Your task to perform on an android device: Go to Maps Image 0: 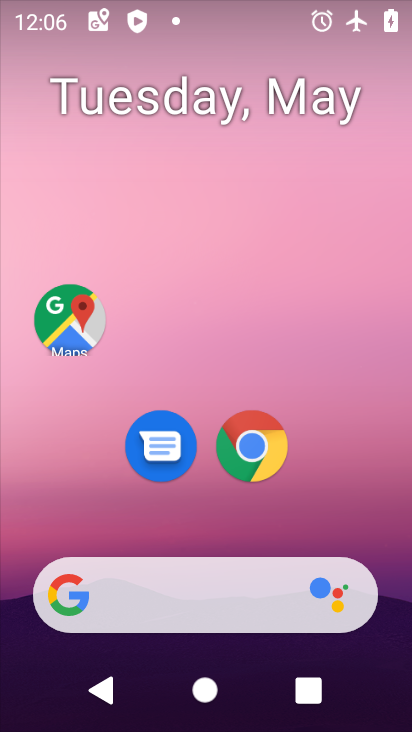
Step 0: click (71, 305)
Your task to perform on an android device: Go to Maps Image 1: 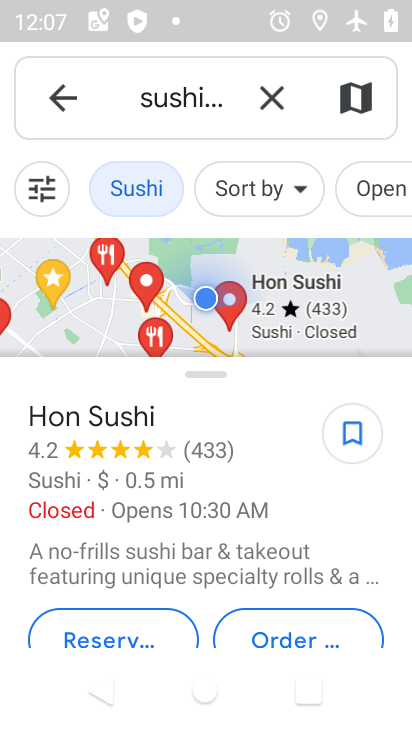
Step 1: click (244, 82)
Your task to perform on an android device: Go to Maps Image 2: 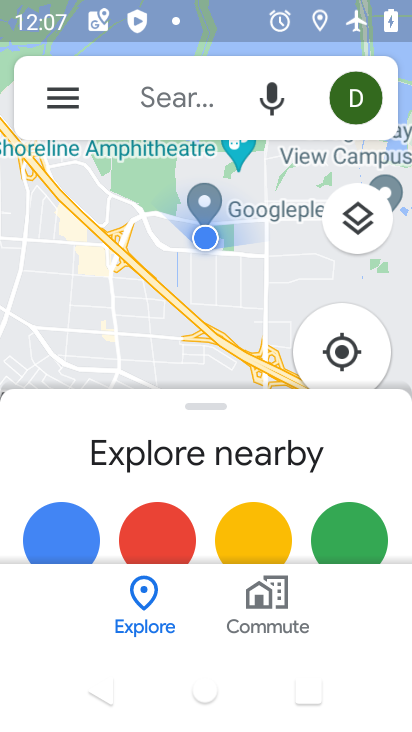
Step 2: task complete